Your task to perform on an android device: turn on sleep mode Image 0: 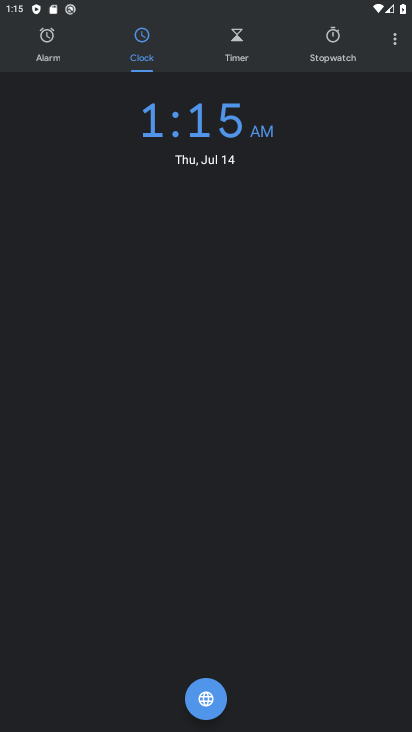
Step 0: press home button
Your task to perform on an android device: turn on sleep mode Image 1: 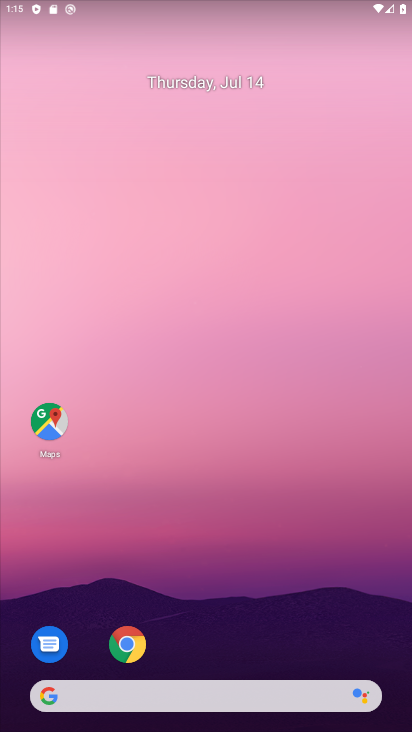
Step 1: drag from (256, 631) to (289, 26)
Your task to perform on an android device: turn on sleep mode Image 2: 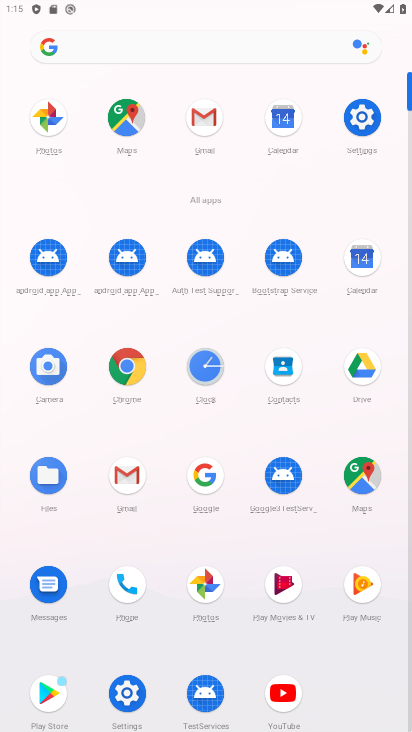
Step 2: click (369, 128)
Your task to perform on an android device: turn on sleep mode Image 3: 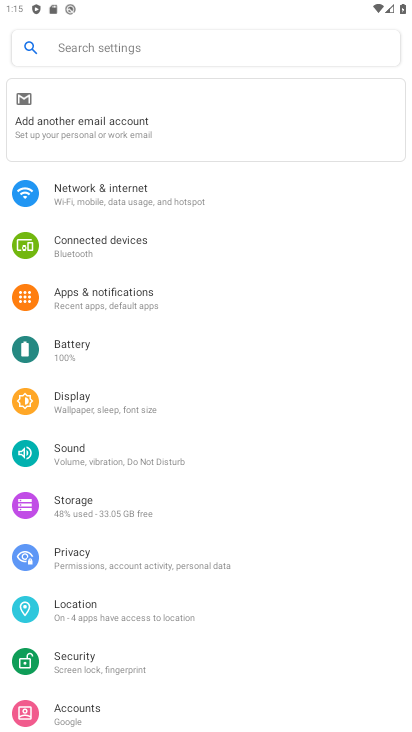
Step 3: click (120, 414)
Your task to perform on an android device: turn on sleep mode Image 4: 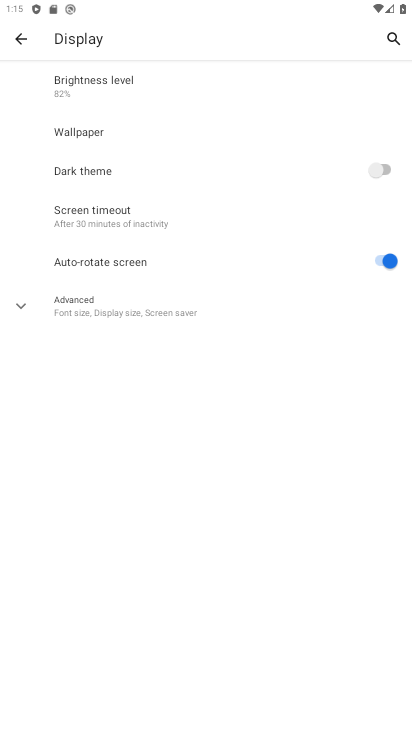
Step 4: click (99, 315)
Your task to perform on an android device: turn on sleep mode Image 5: 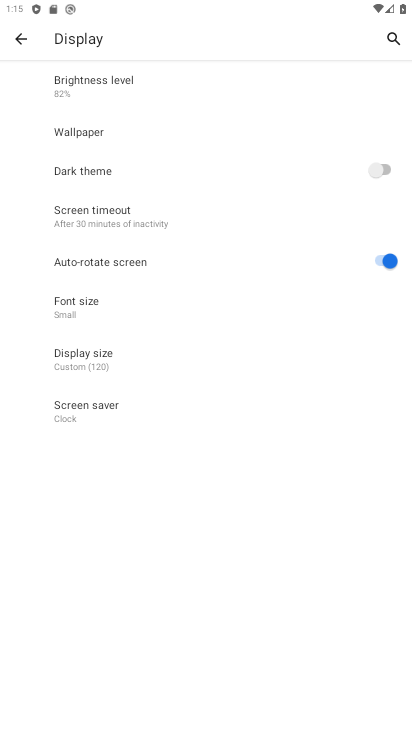
Step 5: task complete